Your task to perform on an android device: Go to display settings Image 0: 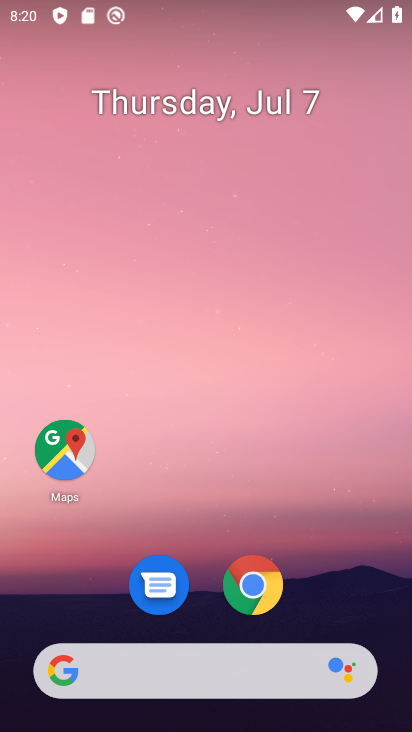
Step 0: drag from (222, 480) to (236, 5)
Your task to perform on an android device: Go to display settings Image 1: 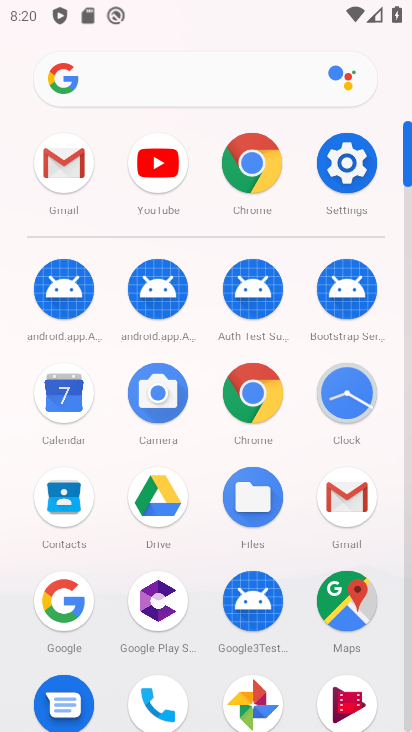
Step 1: click (351, 164)
Your task to perform on an android device: Go to display settings Image 2: 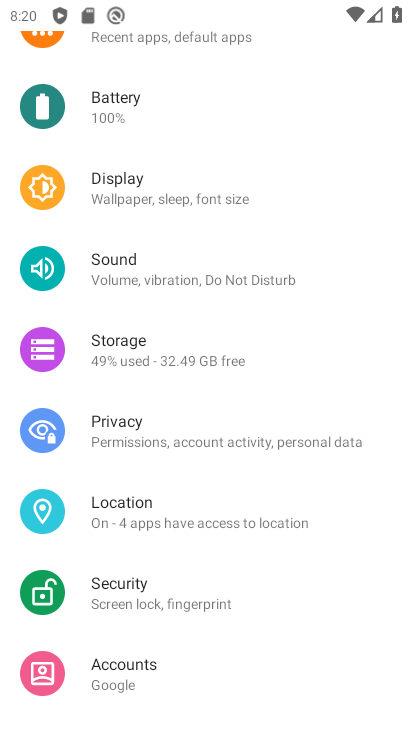
Step 2: click (147, 189)
Your task to perform on an android device: Go to display settings Image 3: 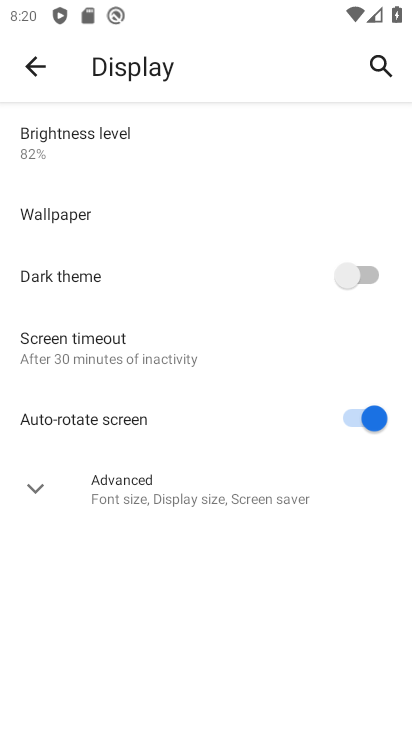
Step 3: task complete